Your task to perform on an android device: Open maps Image 0: 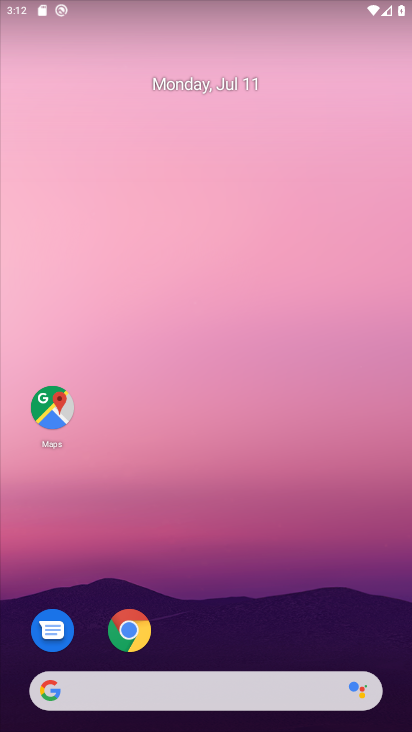
Step 0: click (63, 437)
Your task to perform on an android device: Open maps Image 1: 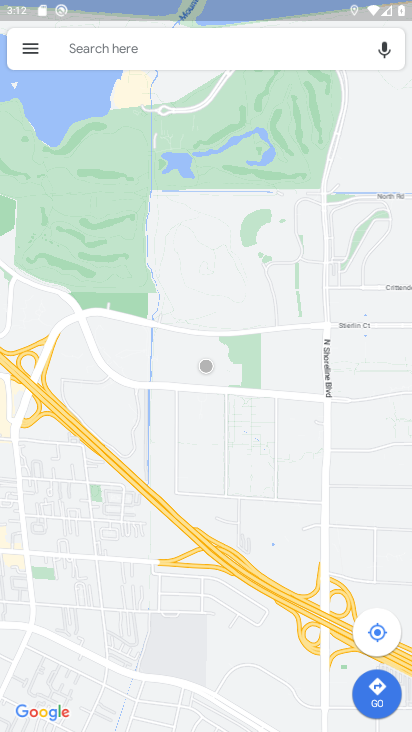
Step 1: task complete